Your task to perform on an android device: find photos in the google photos app Image 0: 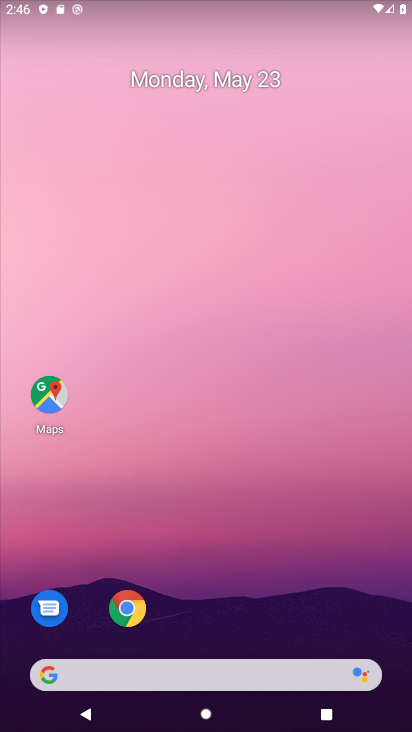
Step 0: drag from (242, 458) to (249, 215)
Your task to perform on an android device: find photos in the google photos app Image 1: 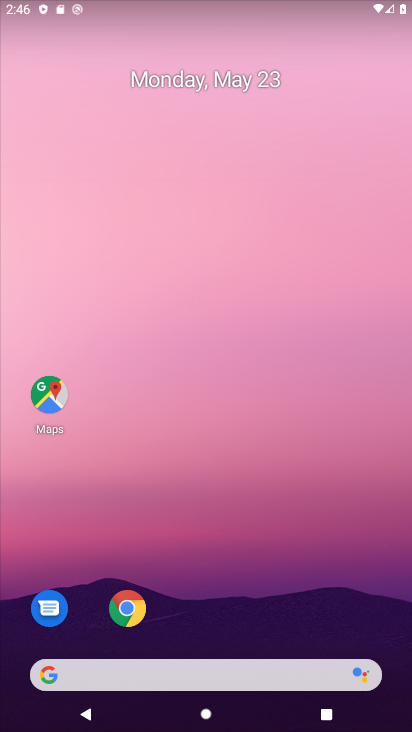
Step 1: drag from (269, 601) to (291, 206)
Your task to perform on an android device: find photos in the google photos app Image 2: 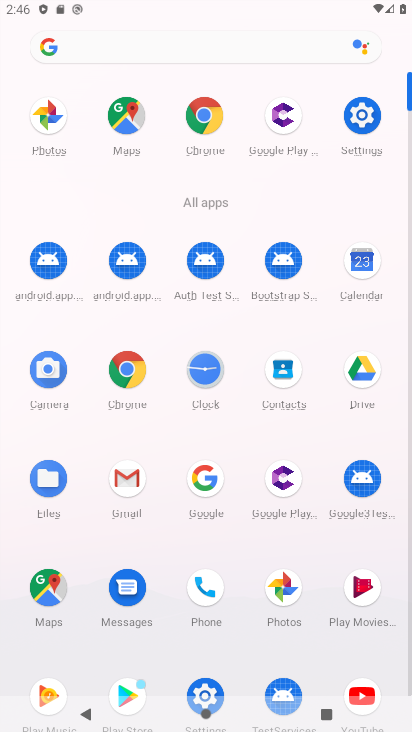
Step 2: click (289, 584)
Your task to perform on an android device: find photos in the google photos app Image 3: 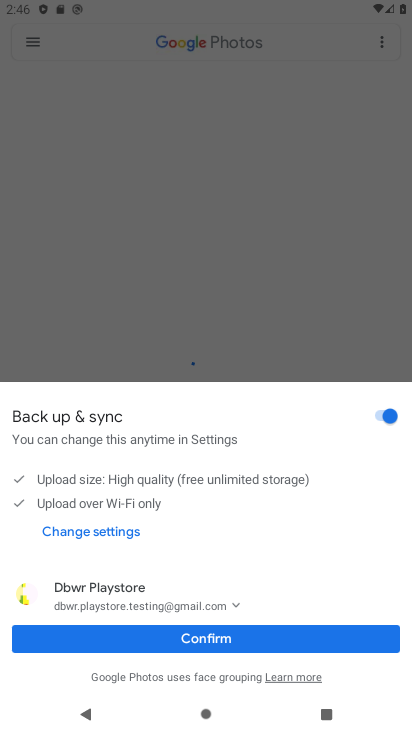
Step 3: click (215, 634)
Your task to perform on an android device: find photos in the google photos app Image 4: 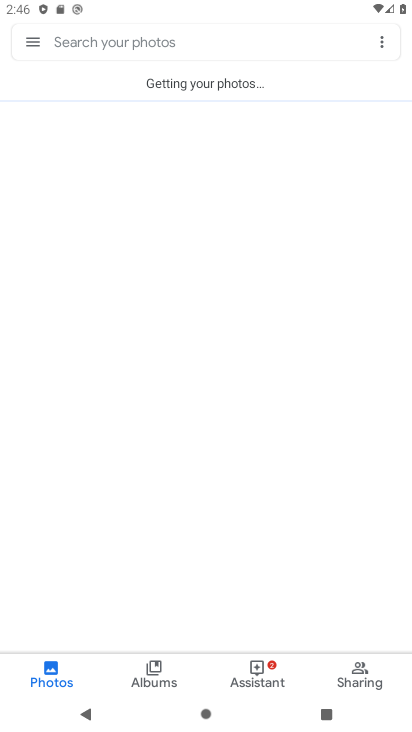
Step 4: click (45, 675)
Your task to perform on an android device: find photos in the google photos app Image 5: 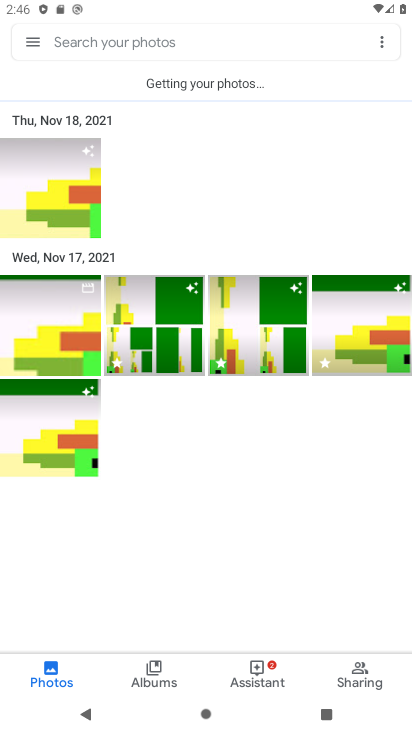
Step 5: task complete